Your task to perform on an android device: Open Reddit.com Image 0: 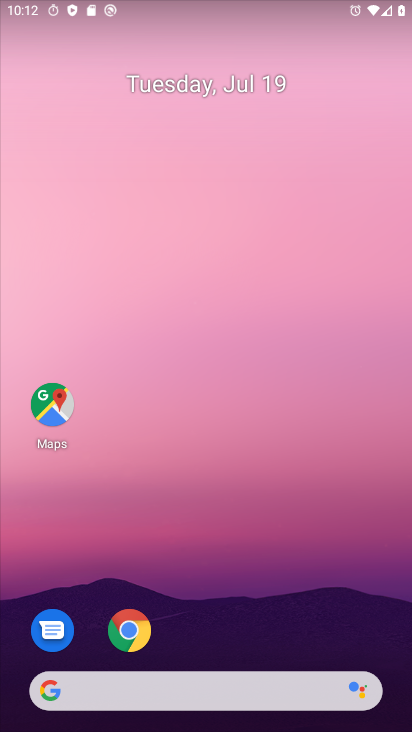
Step 0: press home button
Your task to perform on an android device: Open Reddit.com Image 1: 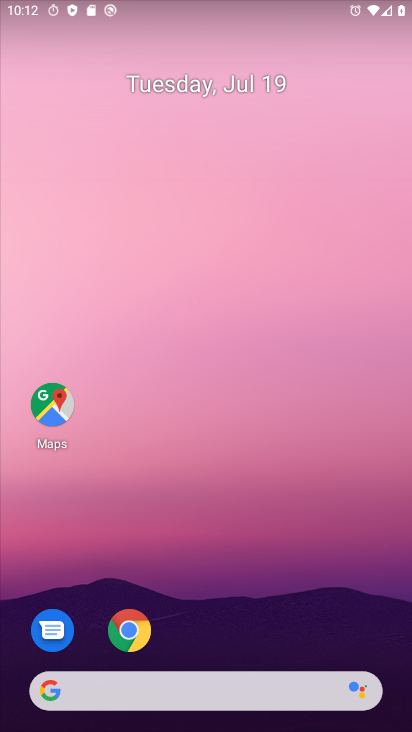
Step 1: click (47, 695)
Your task to perform on an android device: Open Reddit.com Image 2: 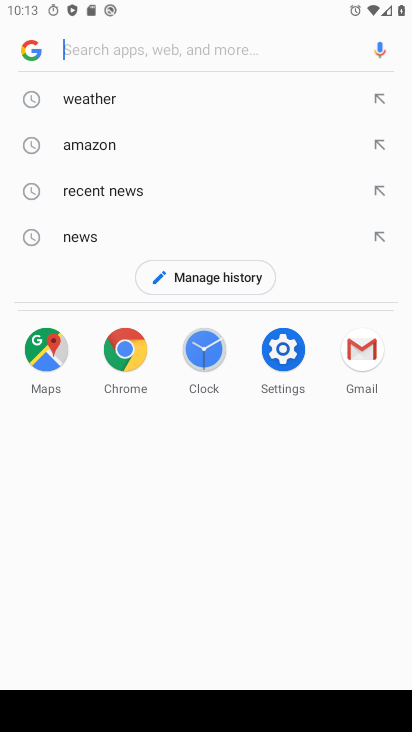
Step 2: type "Reddit.com"
Your task to perform on an android device: Open Reddit.com Image 3: 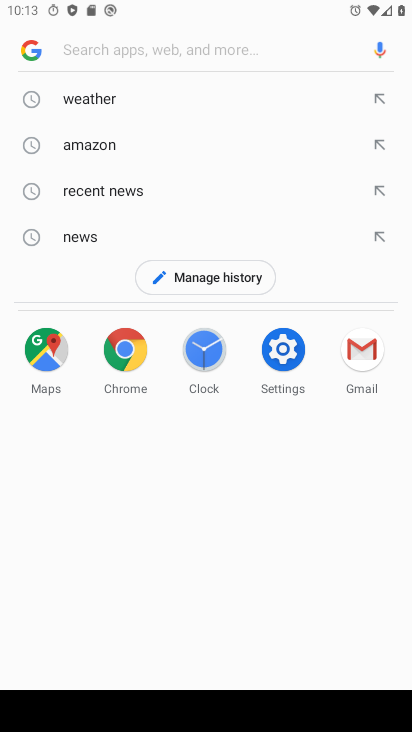
Step 3: click (256, 66)
Your task to perform on an android device: Open Reddit.com Image 4: 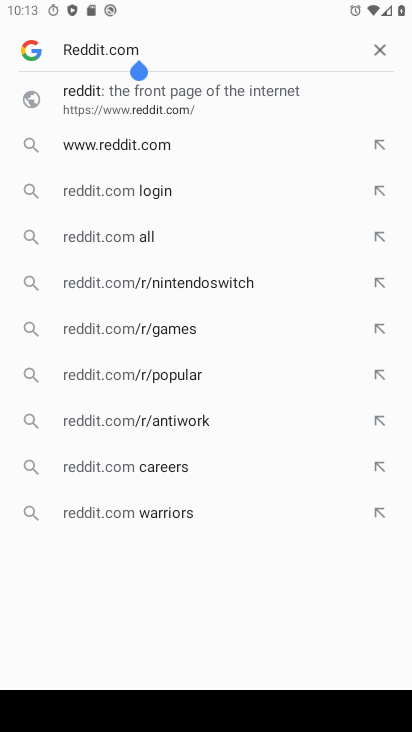
Step 4: click (90, 95)
Your task to perform on an android device: Open Reddit.com Image 5: 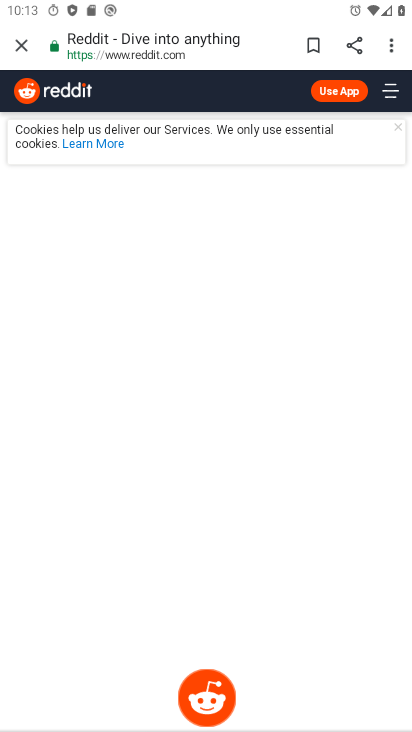
Step 5: task complete